Your task to perform on an android device: turn on data saver in the chrome app Image 0: 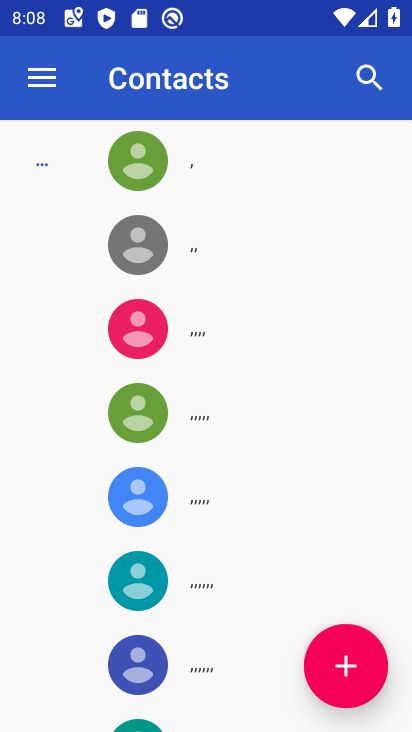
Step 0: press home button
Your task to perform on an android device: turn on data saver in the chrome app Image 1: 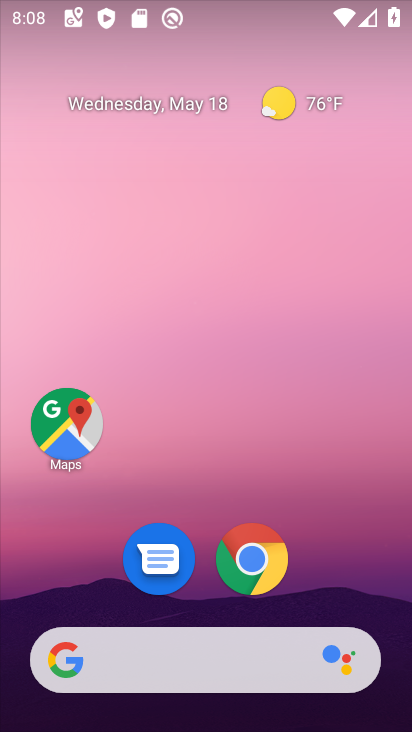
Step 1: drag from (241, 629) to (379, 451)
Your task to perform on an android device: turn on data saver in the chrome app Image 2: 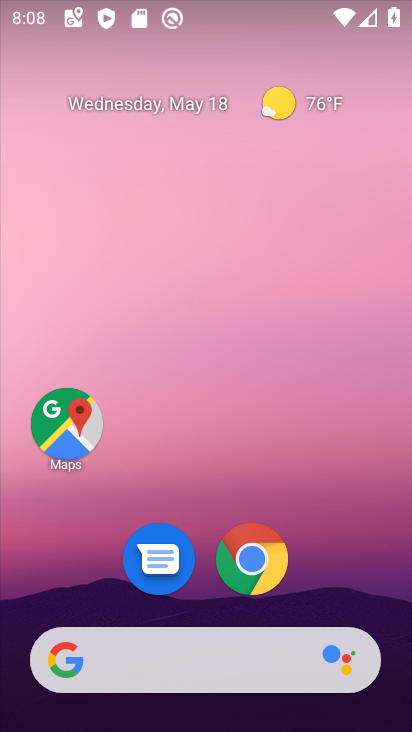
Step 2: click (79, 188)
Your task to perform on an android device: turn on data saver in the chrome app Image 3: 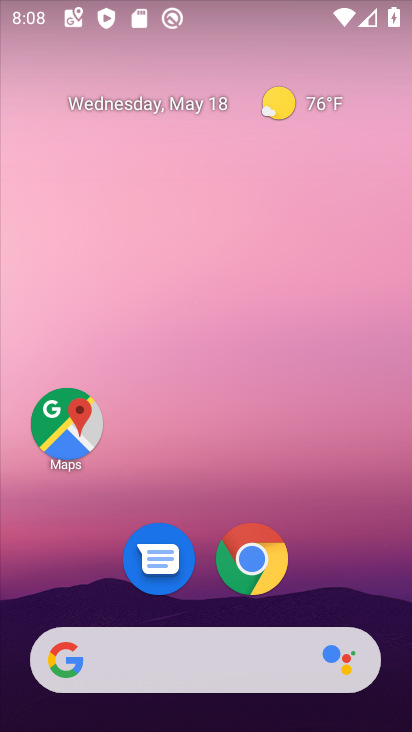
Step 3: click (252, 580)
Your task to perform on an android device: turn on data saver in the chrome app Image 4: 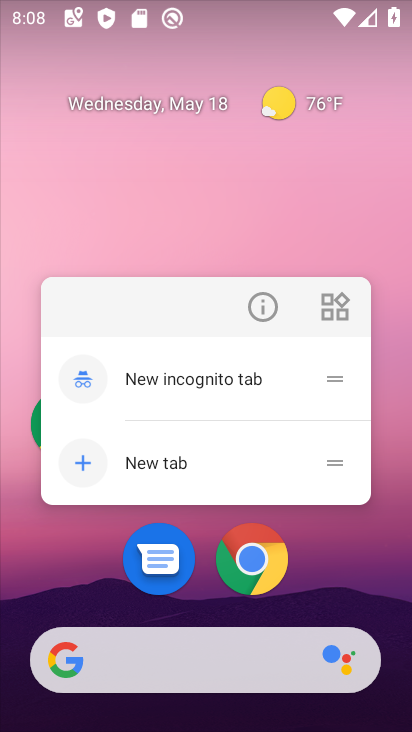
Step 4: click (260, 570)
Your task to perform on an android device: turn on data saver in the chrome app Image 5: 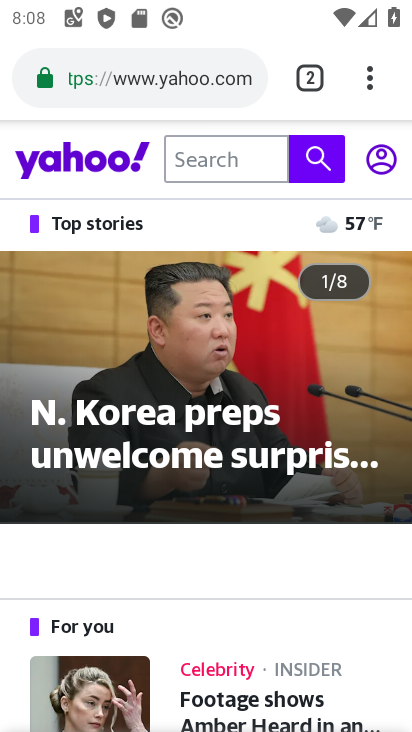
Step 5: click (367, 75)
Your task to perform on an android device: turn on data saver in the chrome app Image 6: 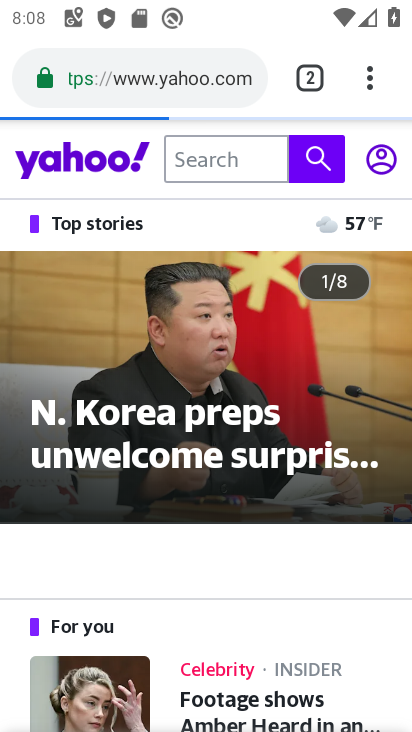
Step 6: drag from (363, 80) to (92, 618)
Your task to perform on an android device: turn on data saver in the chrome app Image 7: 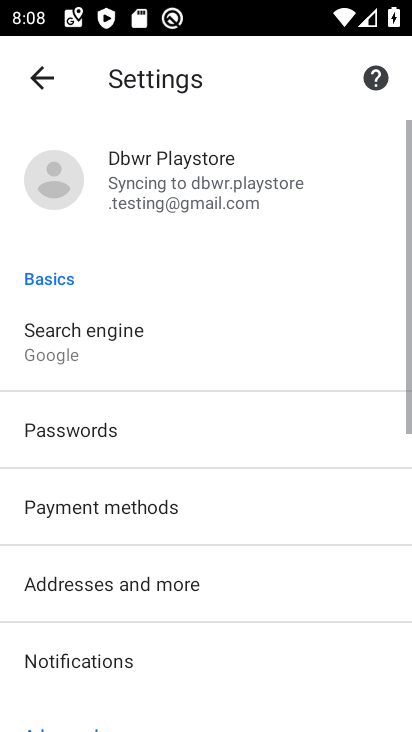
Step 7: drag from (91, 602) to (82, 128)
Your task to perform on an android device: turn on data saver in the chrome app Image 8: 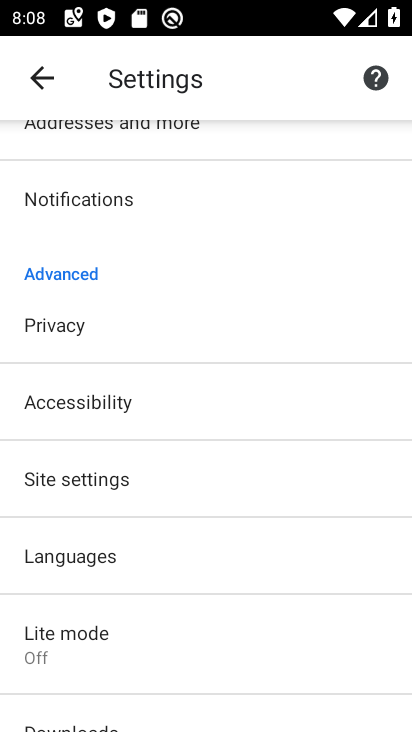
Step 8: click (137, 631)
Your task to perform on an android device: turn on data saver in the chrome app Image 9: 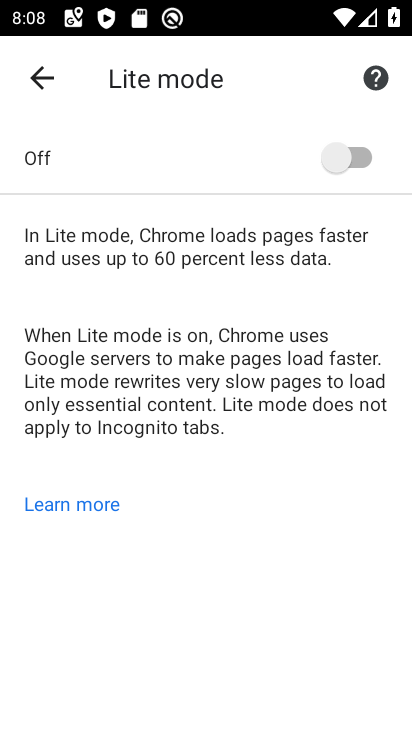
Step 9: click (344, 162)
Your task to perform on an android device: turn on data saver in the chrome app Image 10: 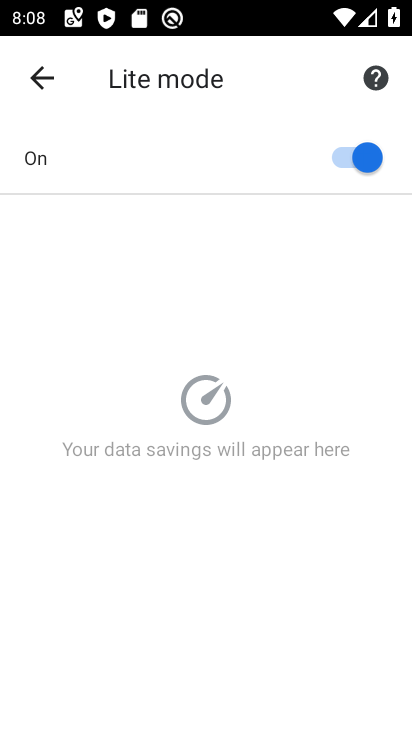
Step 10: task complete